Your task to perform on an android device: change timer sound Image 0: 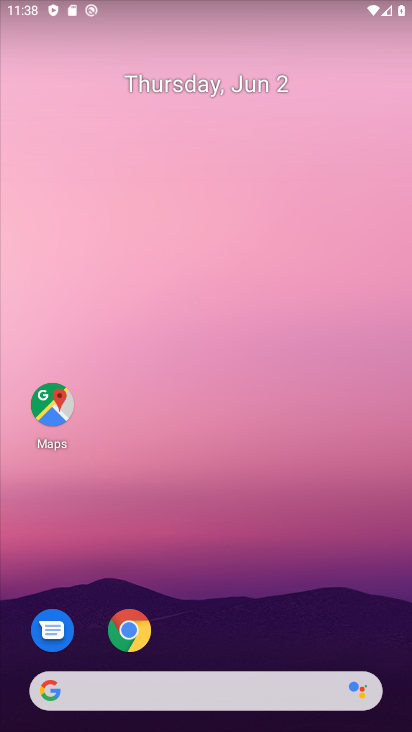
Step 0: drag from (201, 633) to (189, 66)
Your task to perform on an android device: change timer sound Image 1: 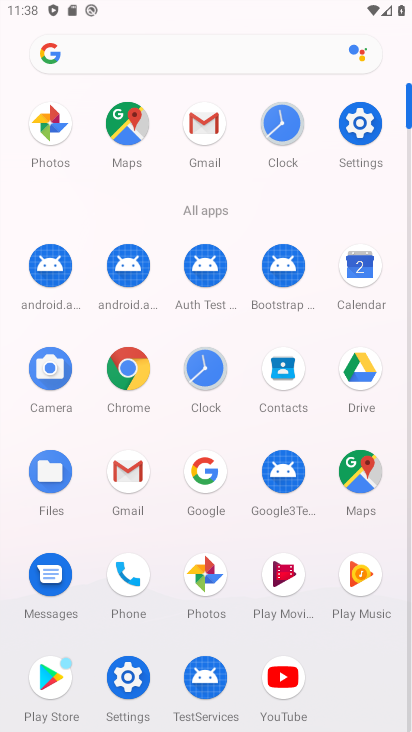
Step 1: click (284, 121)
Your task to perform on an android device: change timer sound Image 2: 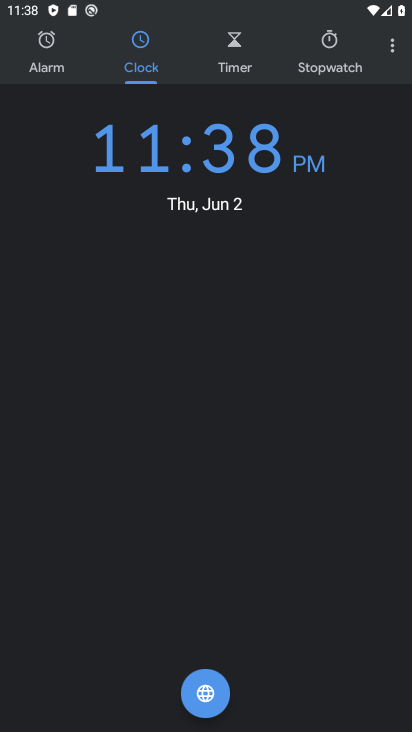
Step 2: click (379, 65)
Your task to perform on an android device: change timer sound Image 3: 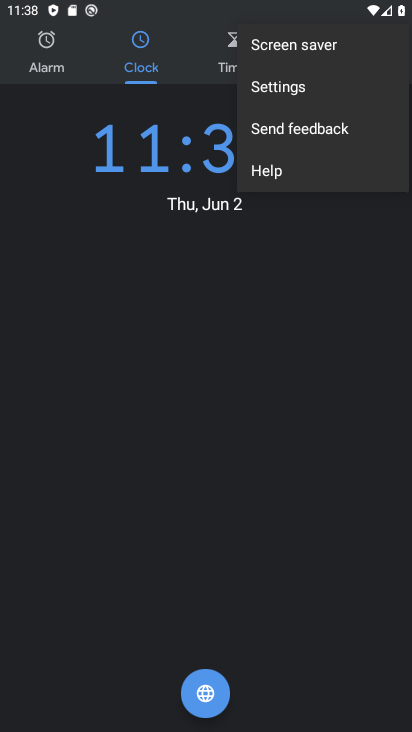
Step 3: click (330, 87)
Your task to perform on an android device: change timer sound Image 4: 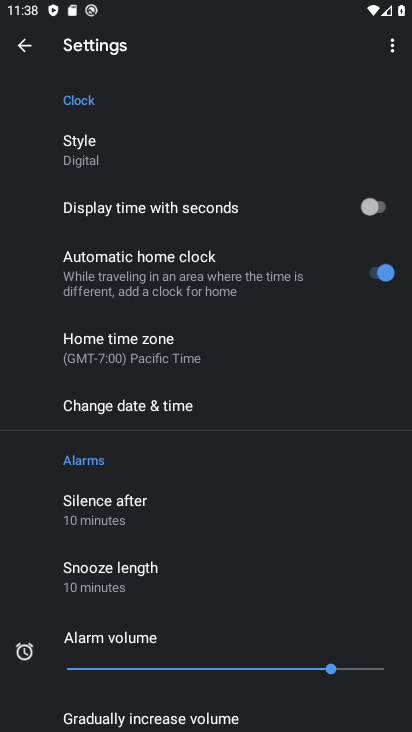
Step 4: drag from (211, 614) to (241, 43)
Your task to perform on an android device: change timer sound Image 5: 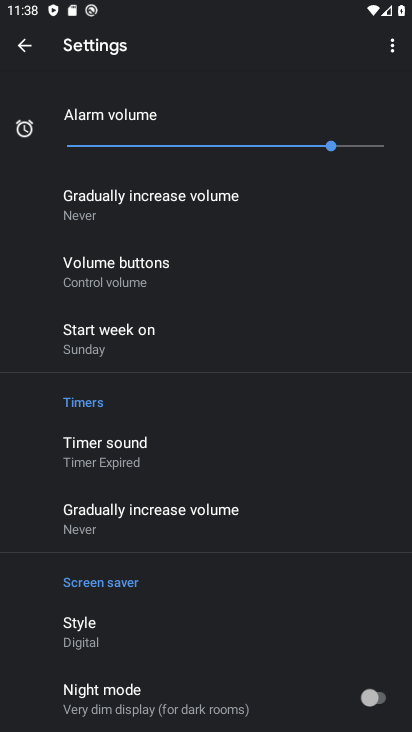
Step 5: click (203, 437)
Your task to perform on an android device: change timer sound Image 6: 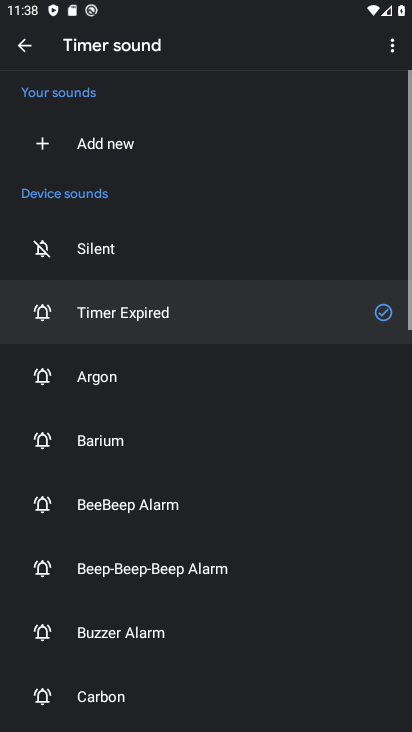
Step 6: click (172, 540)
Your task to perform on an android device: change timer sound Image 7: 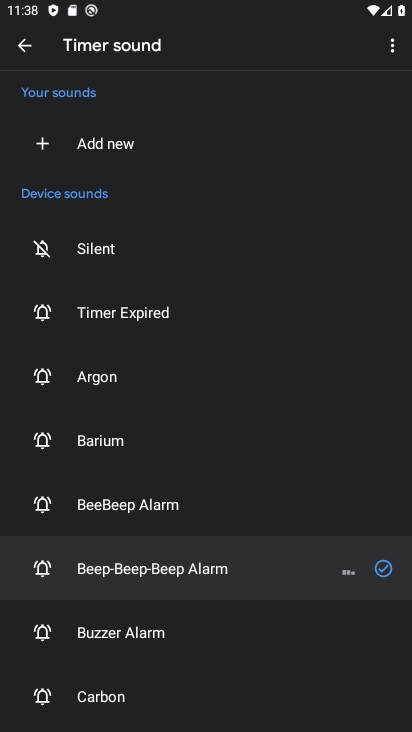
Step 7: task complete